Your task to perform on an android device: stop showing notifications on the lock screen Image 0: 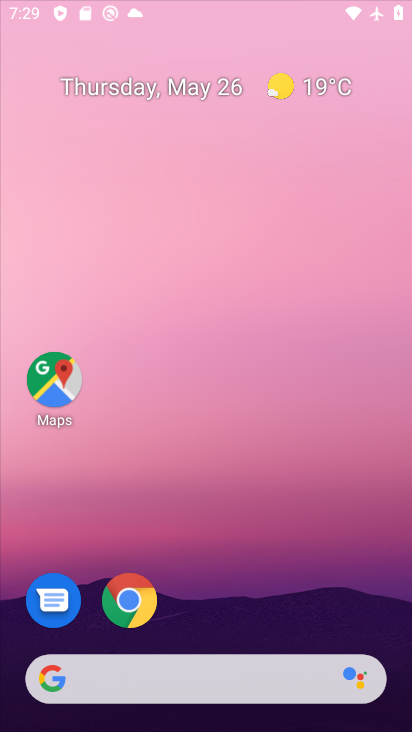
Step 0: press home button
Your task to perform on an android device: stop showing notifications on the lock screen Image 1: 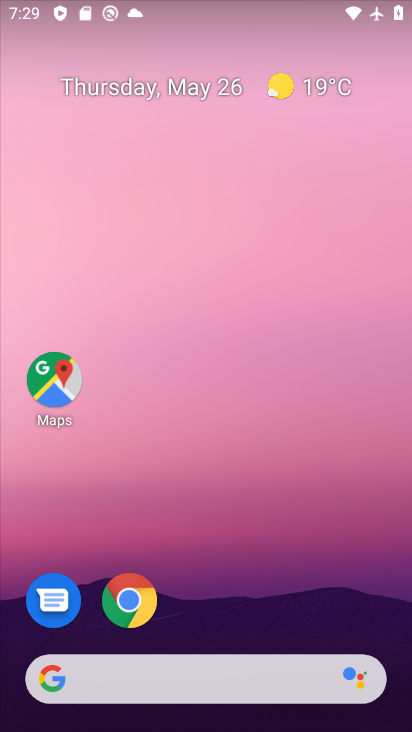
Step 1: drag from (301, 632) to (288, 19)
Your task to perform on an android device: stop showing notifications on the lock screen Image 2: 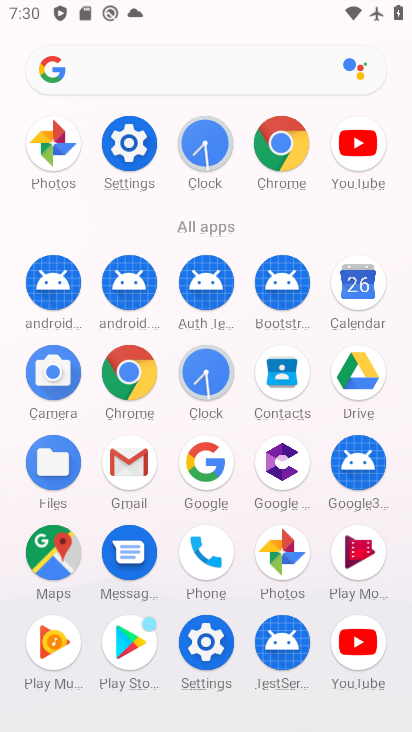
Step 2: click (135, 142)
Your task to perform on an android device: stop showing notifications on the lock screen Image 3: 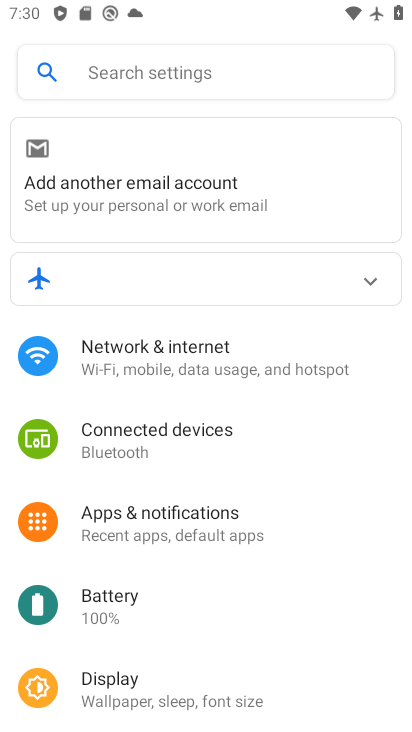
Step 3: click (140, 533)
Your task to perform on an android device: stop showing notifications on the lock screen Image 4: 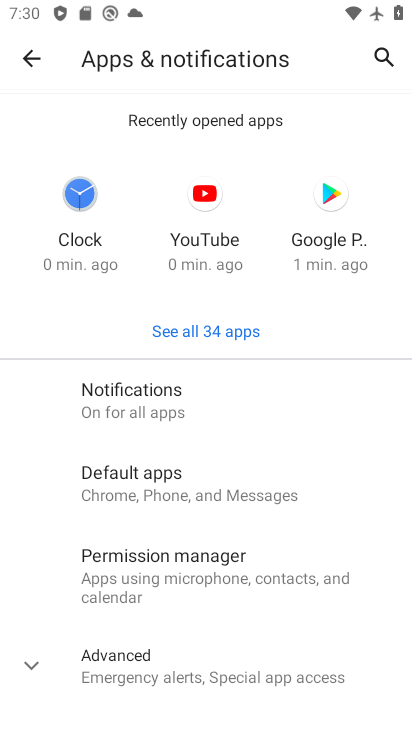
Step 4: click (118, 406)
Your task to perform on an android device: stop showing notifications on the lock screen Image 5: 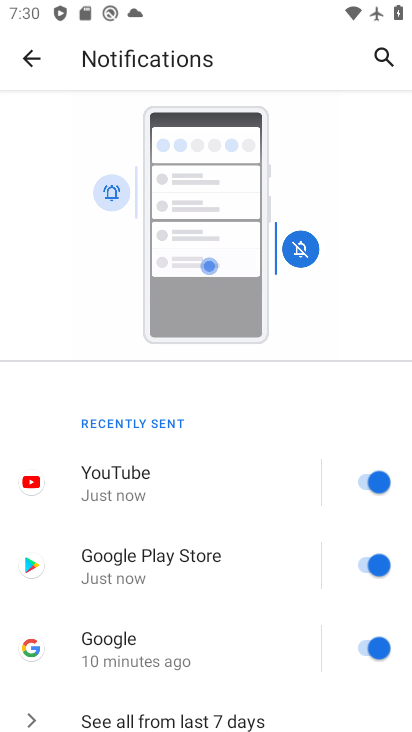
Step 5: drag from (259, 503) to (259, 98)
Your task to perform on an android device: stop showing notifications on the lock screen Image 6: 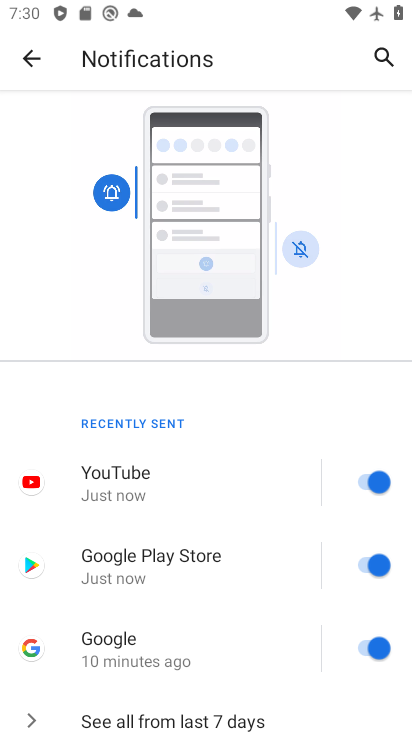
Step 6: drag from (269, 396) to (273, 96)
Your task to perform on an android device: stop showing notifications on the lock screen Image 7: 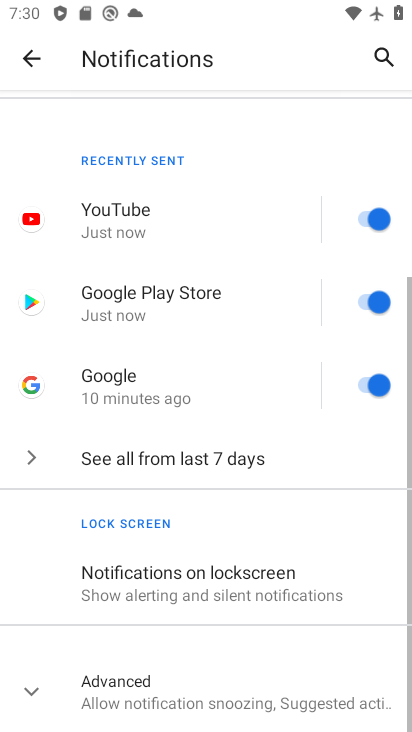
Step 7: drag from (277, 413) to (294, 100)
Your task to perform on an android device: stop showing notifications on the lock screen Image 8: 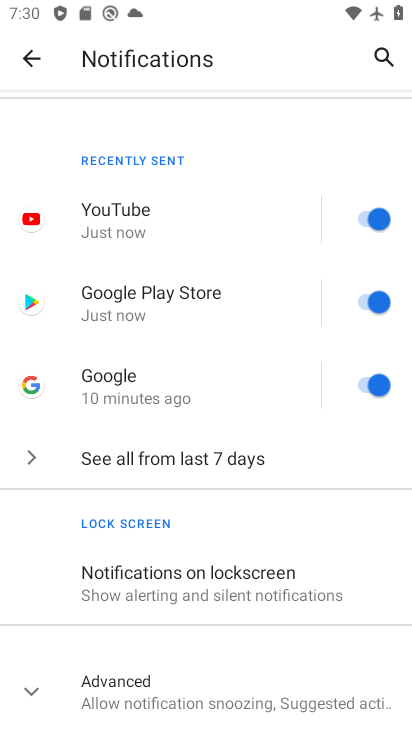
Step 8: click (172, 587)
Your task to perform on an android device: stop showing notifications on the lock screen Image 9: 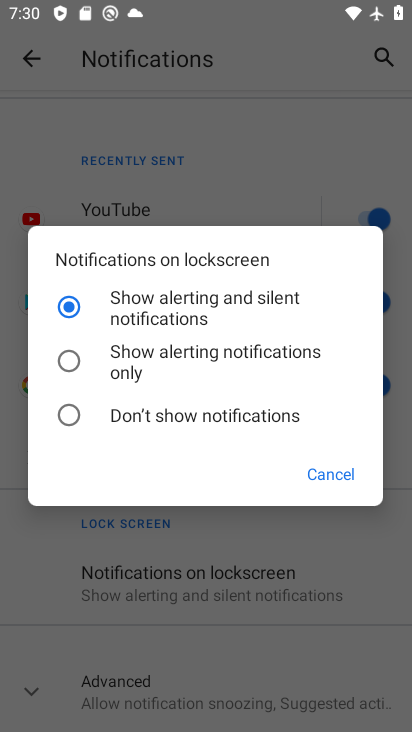
Step 9: click (68, 415)
Your task to perform on an android device: stop showing notifications on the lock screen Image 10: 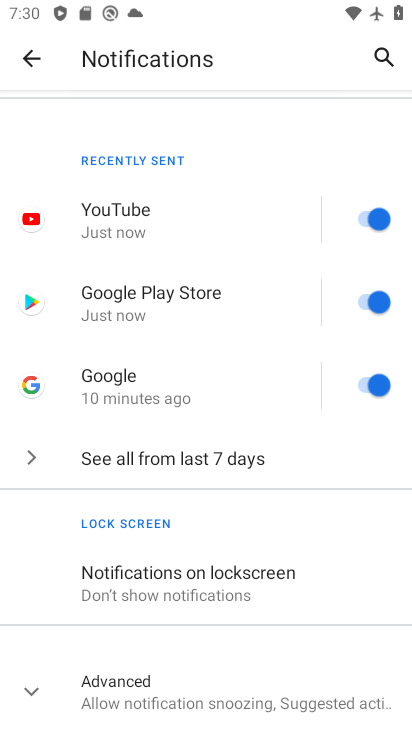
Step 10: task complete